Your task to perform on an android device: Go to wifi settings Image 0: 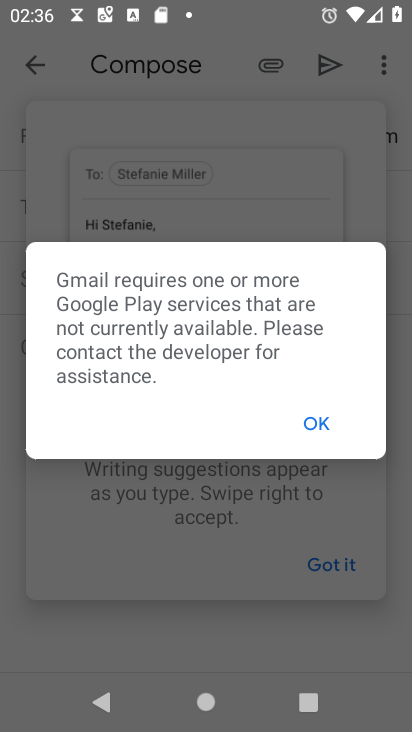
Step 0: press home button
Your task to perform on an android device: Go to wifi settings Image 1: 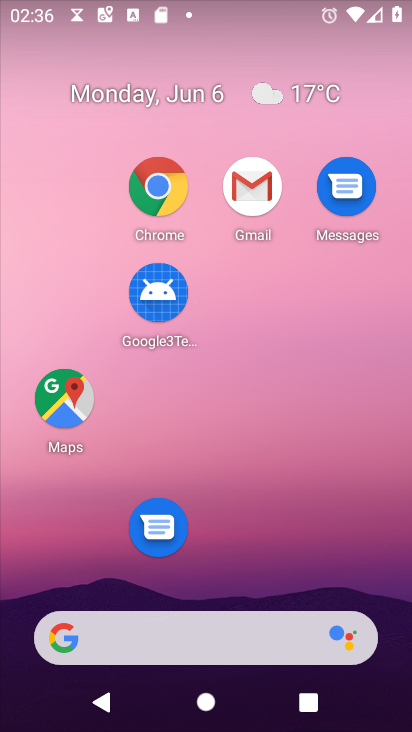
Step 1: drag from (357, 482) to (373, 82)
Your task to perform on an android device: Go to wifi settings Image 2: 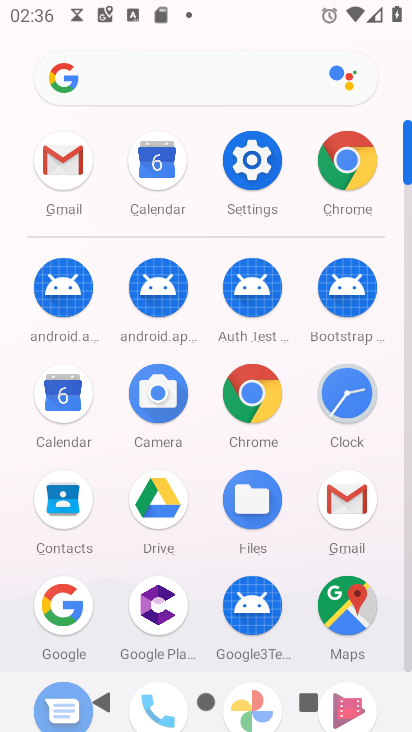
Step 2: click (234, 159)
Your task to perform on an android device: Go to wifi settings Image 3: 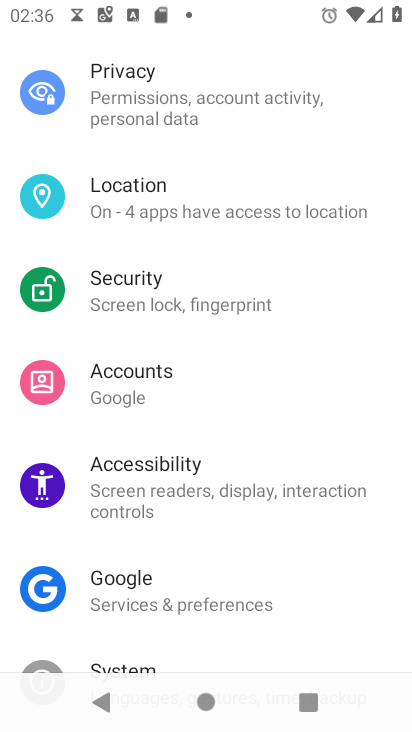
Step 3: drag from (378, 116) to (332, 726)
Your task to perform on an android device: Go to wifi settings Image 4: 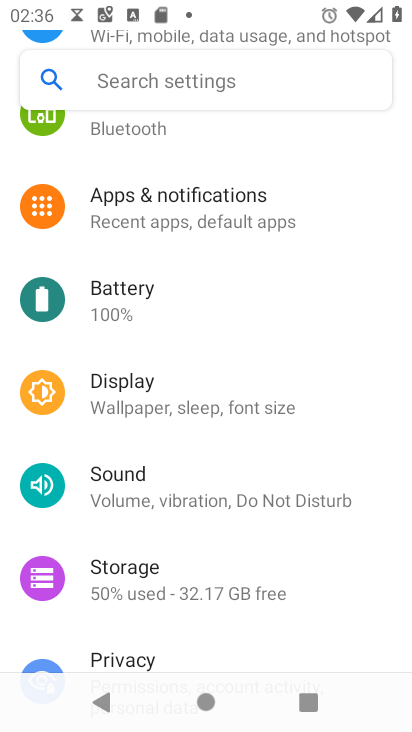
Step 4: drag from (344, 456) to (267, 645)
Your task to perform on an android device: Go to wifi settings Image 5: 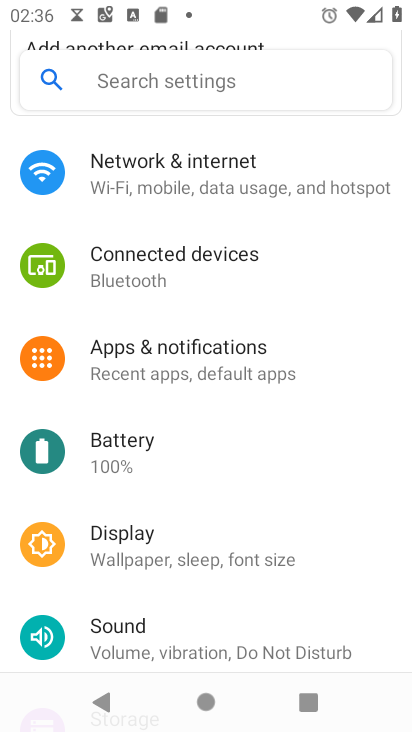
Step 5: click (266, 186)
Your task to perform on an android device: Go to wifi settings Image 6: 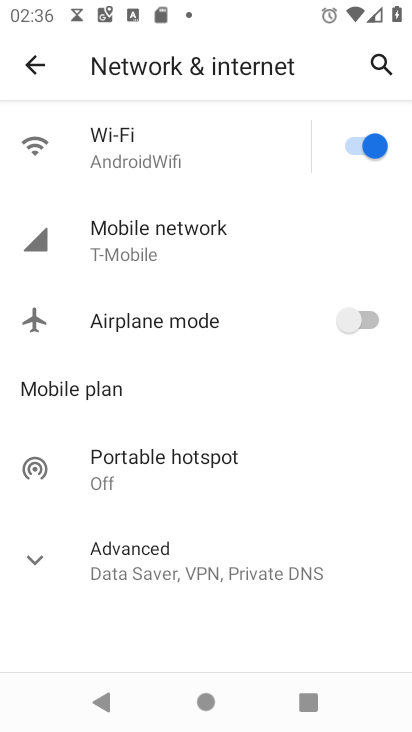
Step 6: click (162, 162)
Your task to perform on an android device: Go to wifi settings Image 7: 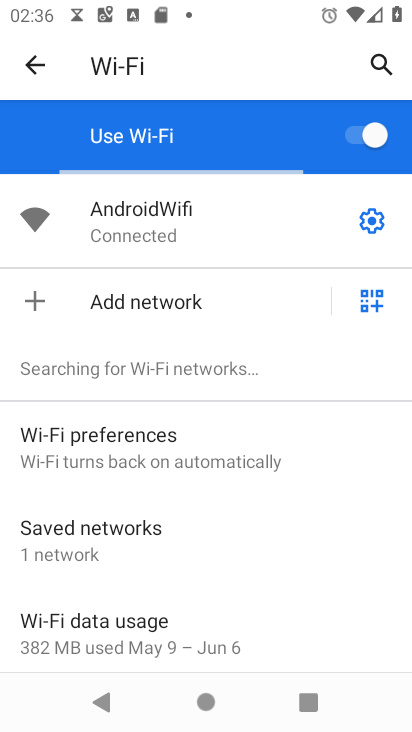
Step 7: task complete